Your task to perform on an android device: Go to Wikipedia Image 0: 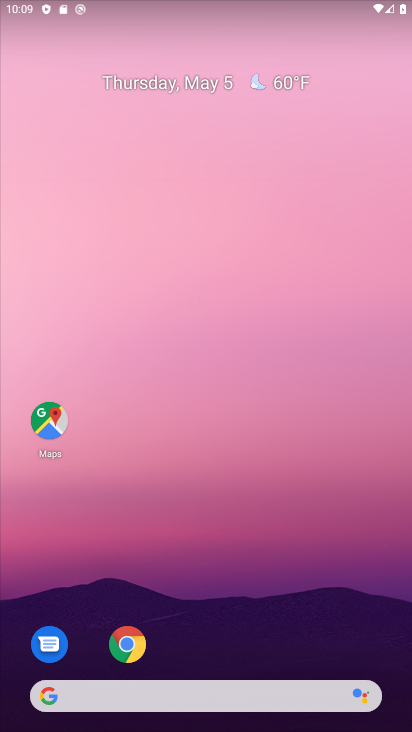
Step 0: drag from (376, 644) to (351, 204)
Your task to perform on an android device: Go to Wikipedia Image 1: 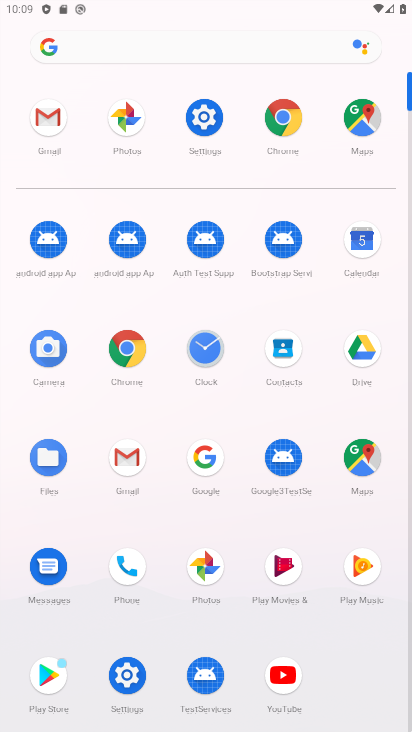
Step 1: click (133, 353)
Your task to perform on an android device: Go to Wikipedia Image 2: 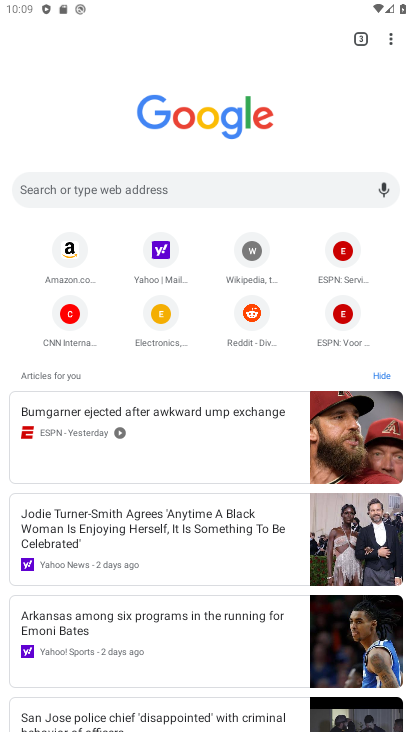
Step 2: click (116, 193)
Your task to perform on an android device: Go to Wikipedia Image 3: 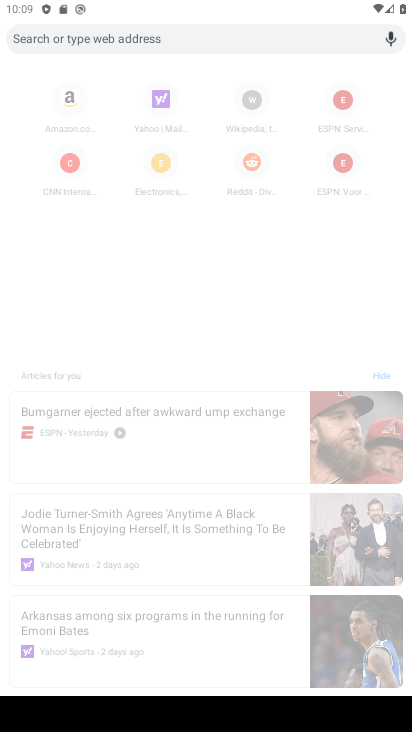
Step 3: type "wikipedia"
Your task to perform on an android device: Go to Wikipedia Image 4: 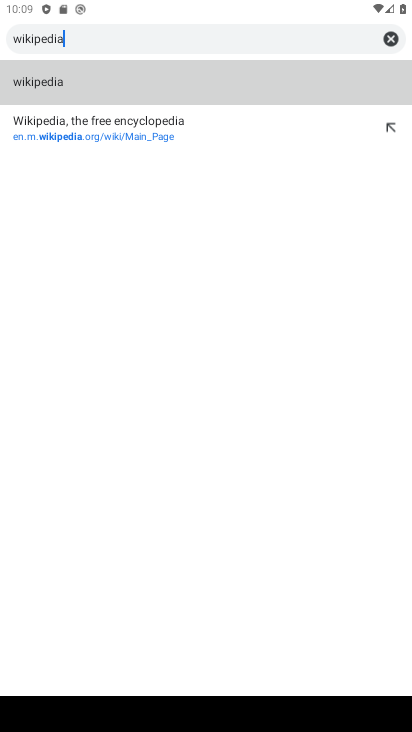
Step 4: click (29, 87)
Your task to perform on an android device: Go to Wikipedia Image 5: 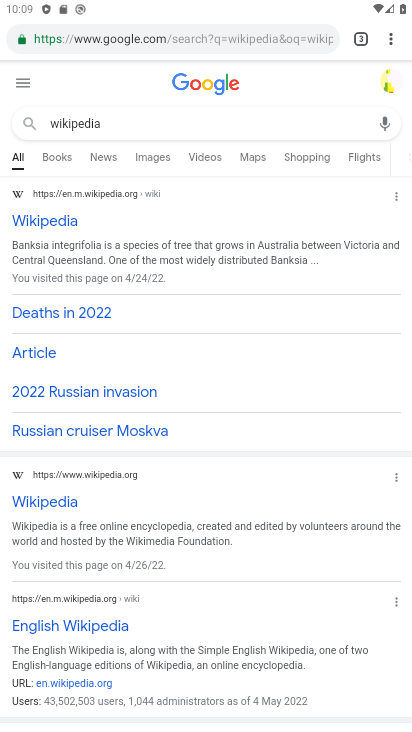
Step 5: click (44, 221)
Your task to perform on an android device: Go to Wikipedia Image 6: 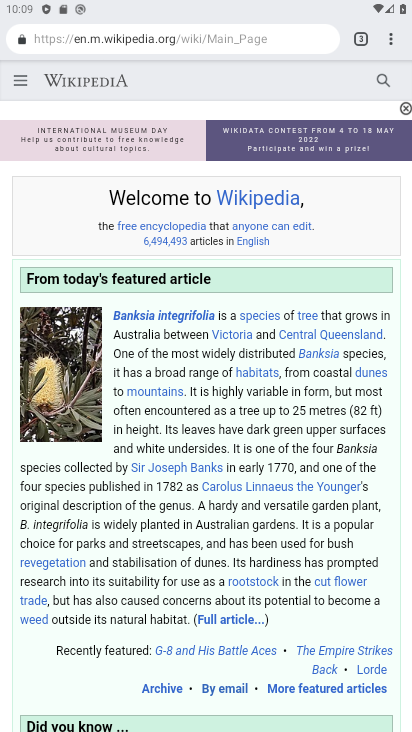
Step 6: task complete